Your task to perform on an android device: What's the weather? Image 0: 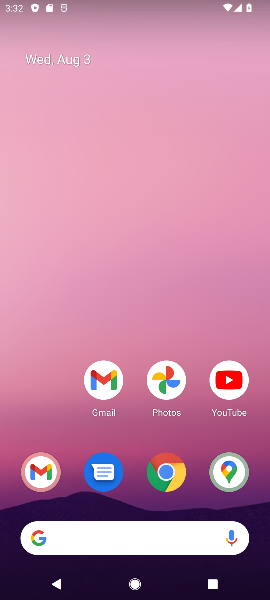
Step 0: drag from (141, 426) to (93, 0)
Your task to perform on an android device: What's the weather? Image 1: 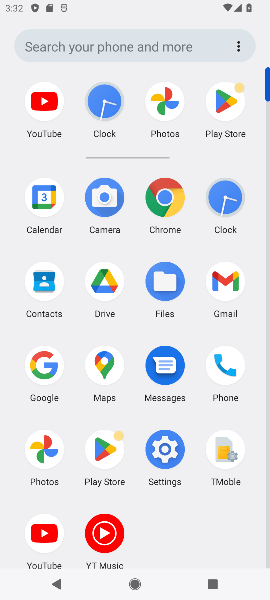
Step 1: click (44, 363)
Your task to perform on an android device: What's the weather? Image 2: 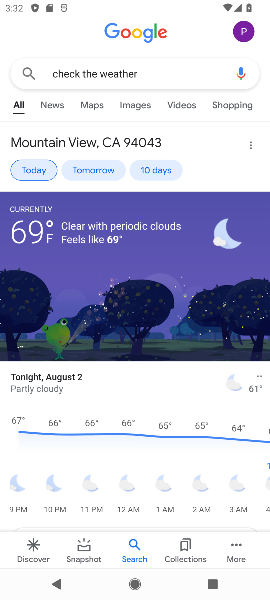
Step 2: press back button
Your task to perform on an android device: What's the weather? Image 3: 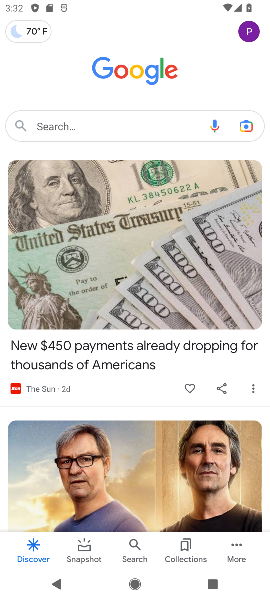
Step 3: click (52, 122)
Your task to perform on an android device: What's the weather? Image 4: 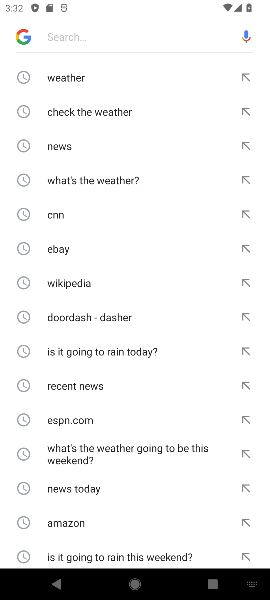
Step 4: type "What's the weather?"
Your task to perform on an android device: What's the weather? Image 5: 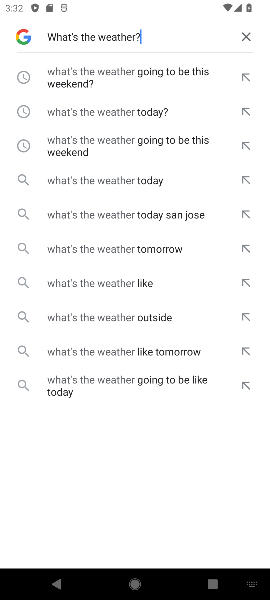
Step 5: click (88, 181)
Your task to perform on an android device: What's the weather? Image 6: 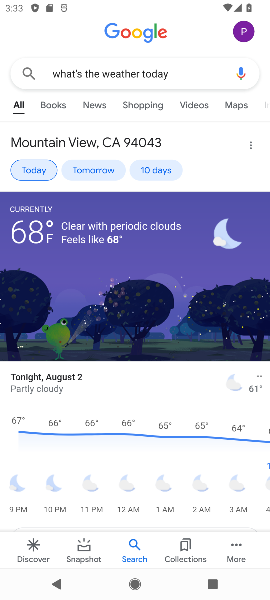
Step 6: task complete